Your task to perform on an android device: Open CNN.com Image 0: 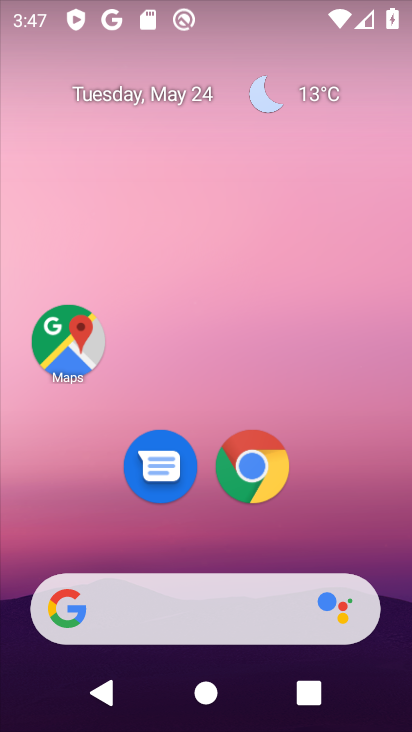
Step 0: click (249, 468)
Your task to perform on an android device: Open CNN.com Image 1: 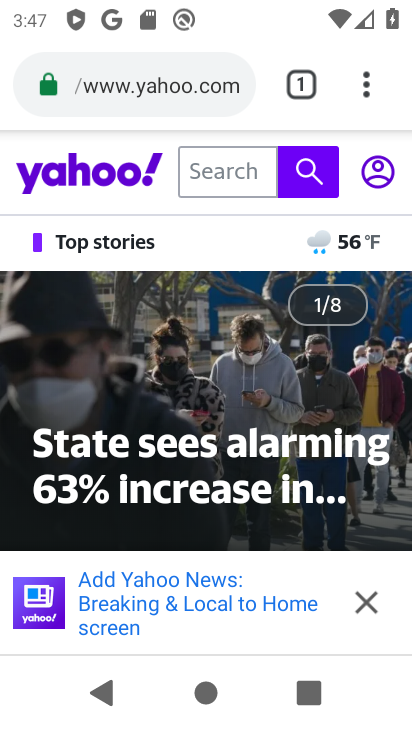
Step 1: click (189, 96)
Your task to perform on an android device: Open CNN.com Image 2: 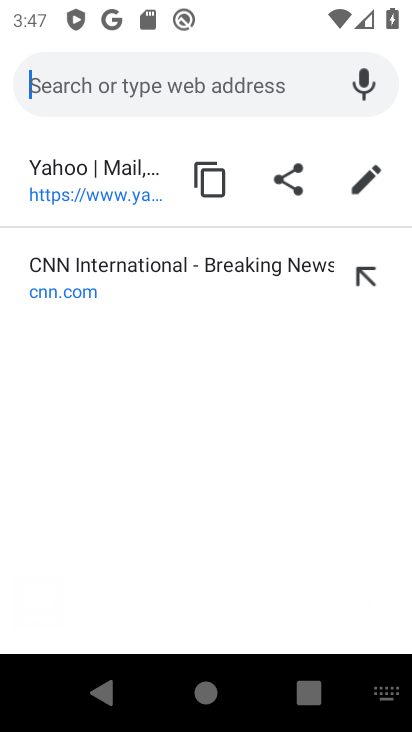
Step 2: click (62, 292)
Your task to perform on an android device: Open CNN.com Image 3: 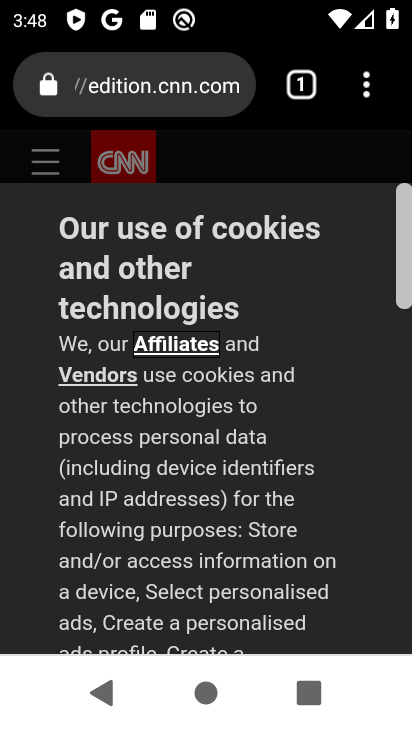
Step 3: task complete